Your task to perform on an android device: turn on priority inbox in the gmail app Image 0: 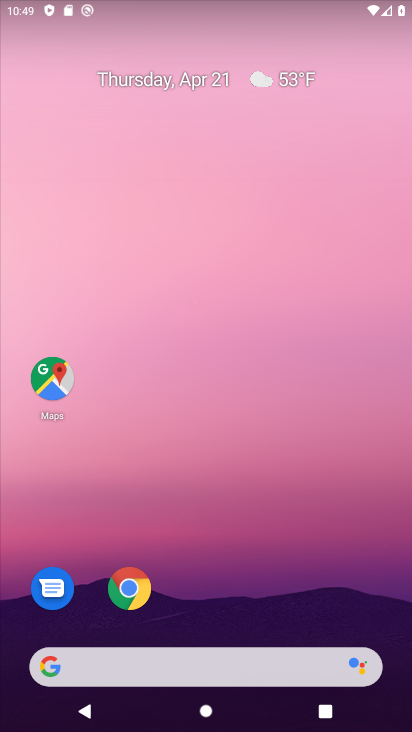
Step 0: drag from (283, 542) to (280, 50)
Your task to perform on an android device: turn on priority inbox in the gmail app Image 1: 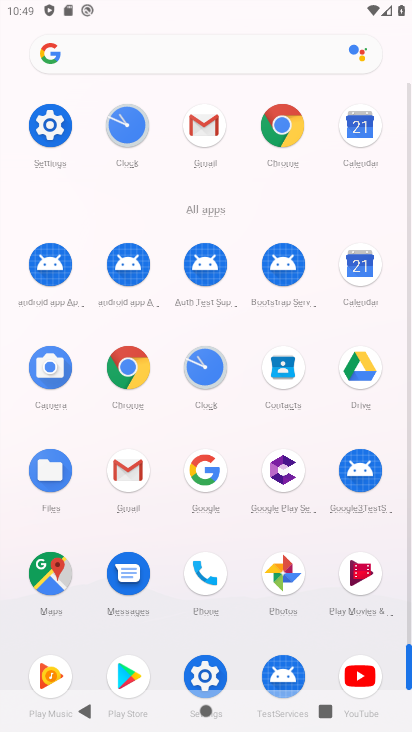
Step 1: click (208, 119)
Your task to perform on an android device: turn on priority inbox in the gmail app Image 2: 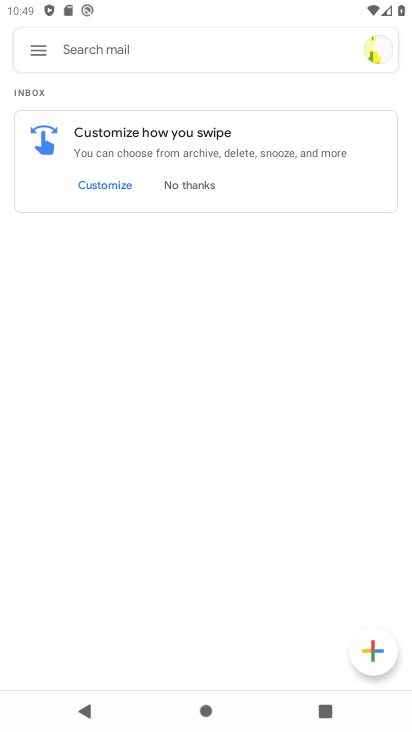
Step 2: click (38, 70)
Your task to perform on an android device: turn on priority inbox in the gmail app Image 3: 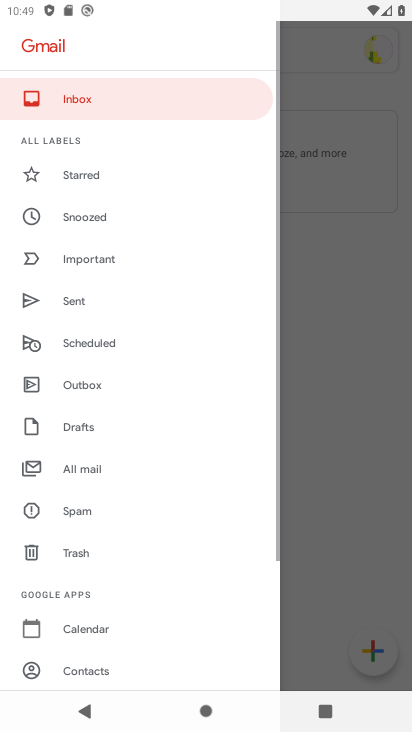
Step 3: drag from (131, 532) to (125, 248)
Your task to perform on an android device: turn on priority inbox in the gmail app Image 4: 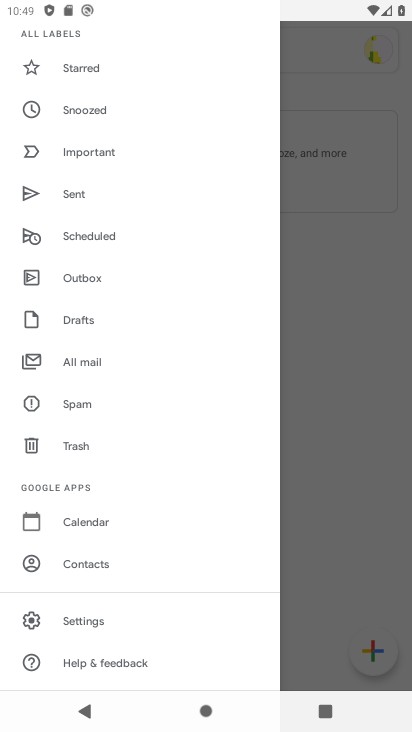
Step 4: click (83, 610)
Your task to perform on an android device: turn on priority inbox in the gmail app Image 5: 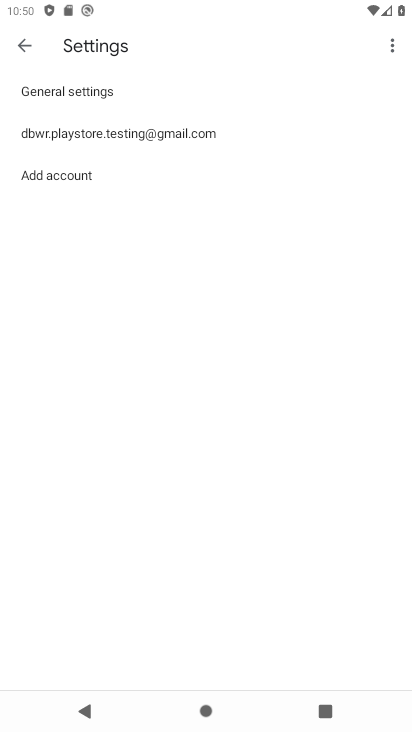
Step 5: click (99, 136)
Your task to perform on an android device: turn on priority inbox in the gmail app Image 6: 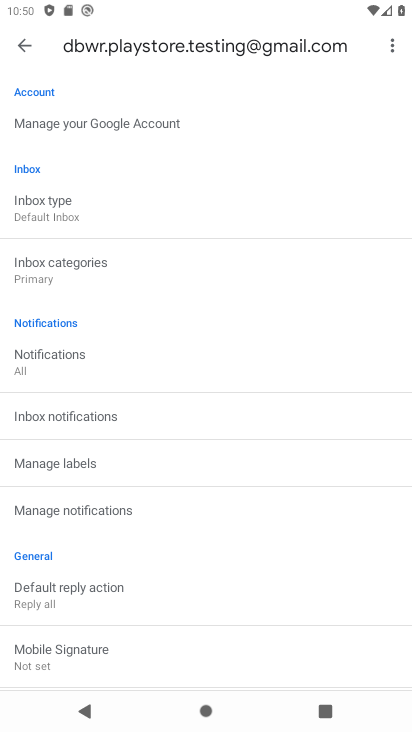
Step 6: click (99, 199)
Your task to perform on an android device: turn on priority inbox in the gmail app Image 7: 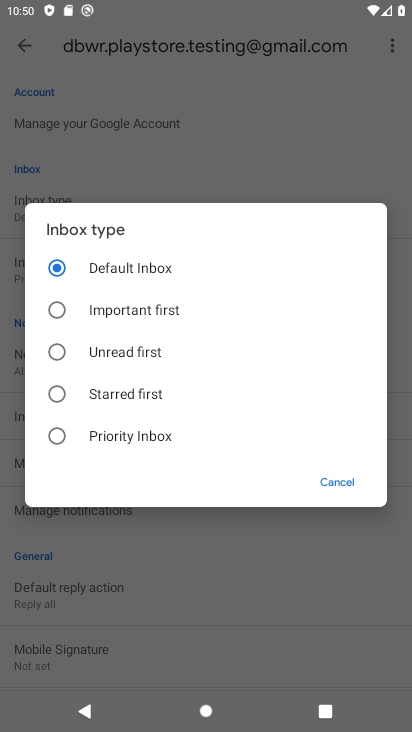
Step 7: click (129, 440)
Your task to perform on an android device: turn on priority inbox in the gmail app Image 8: 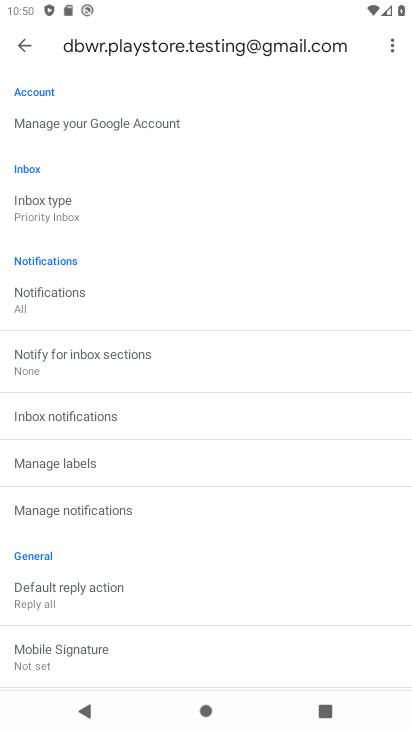
Step 8: task complete